Your task to perform on an android device: check the backup settings in the google photos Image 0: 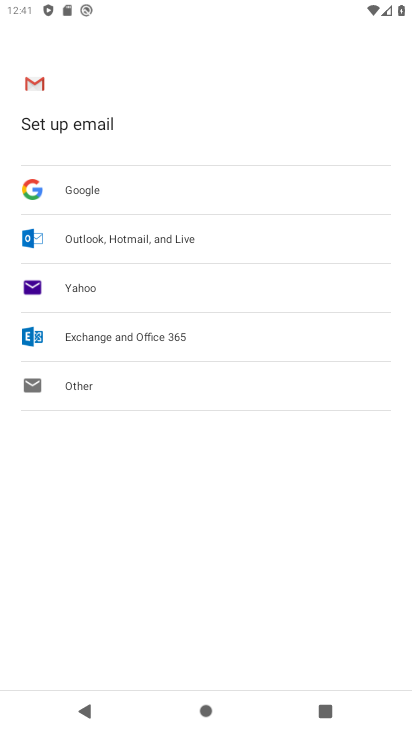
Step 0: press home button
Your task to perform on an android device: check the backup settings in the google photos Image 1: 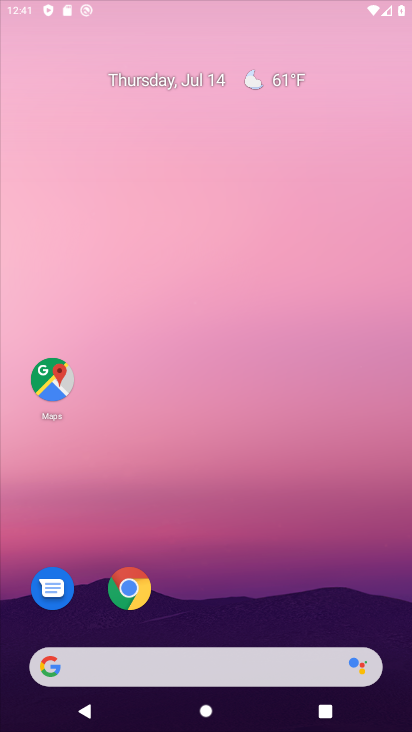
Step 1: drag from (201, 590) to (186, 317)
Your task to perform on an android device: check the backup settings in the google photos Image 2: 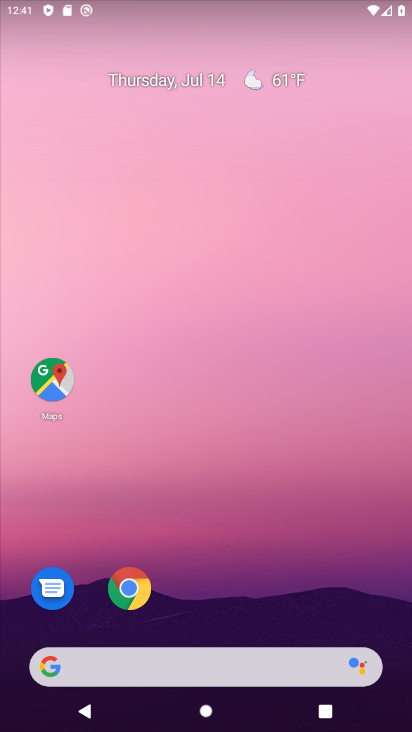
Step 2: drag from (203, 609) to (209, 319)
Your task to perform on an android device: check the backup settings in the google photos Image 3: 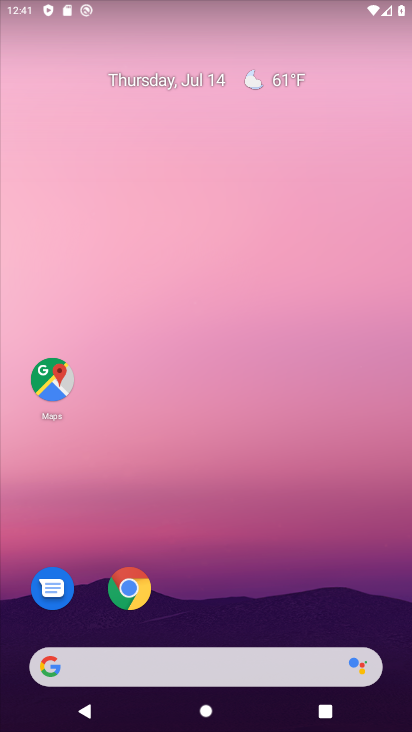
Step 3: drag from (234, 638) to (251, 206)
Your task to perform on an android device: check the backup settings in the google photos Image 4: 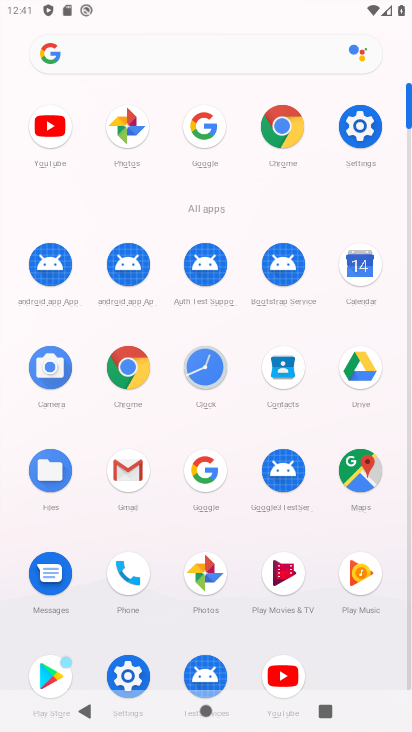
Step 4: click (199, 564)
Your task to perform on an android device: check the backup settings in the google photos Image 5: 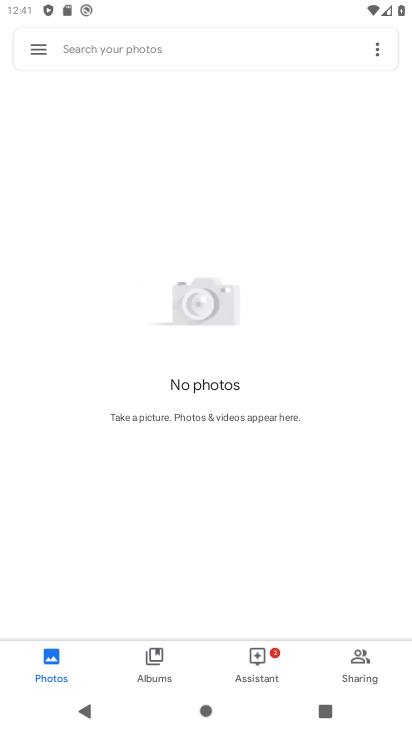
Step 5: click (29, 51)
Your task to perform on an android device: check the backup settings in the google photos Image 6: 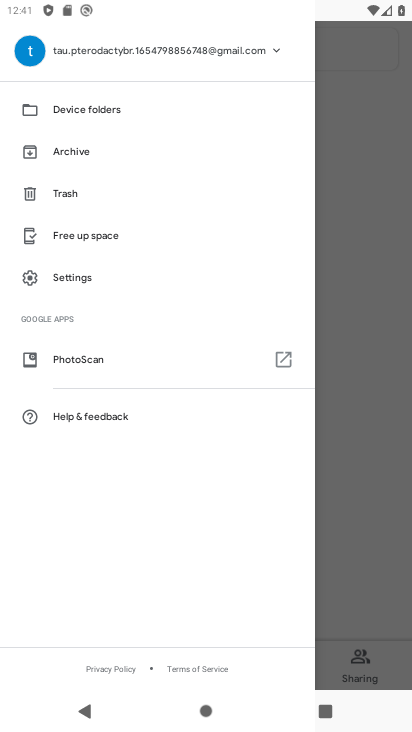
Step 6: click (66, 282)
Your task to perform on an android device: check the backup settings in the google photos Image 7: 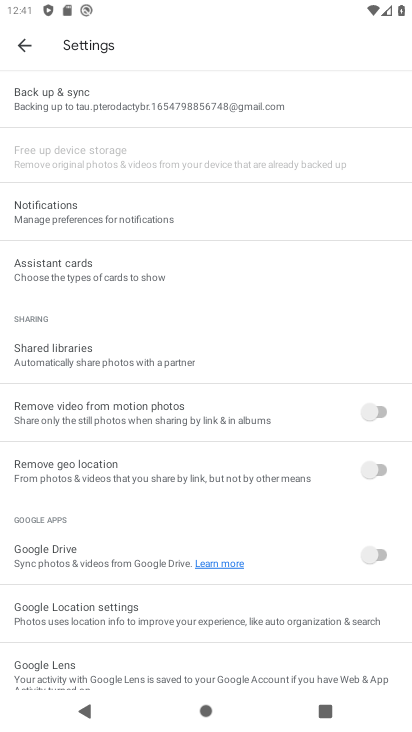
Step 7: click (93, 99)
Your task to perform on an android device: check the backup settings in the google photos Image 8: 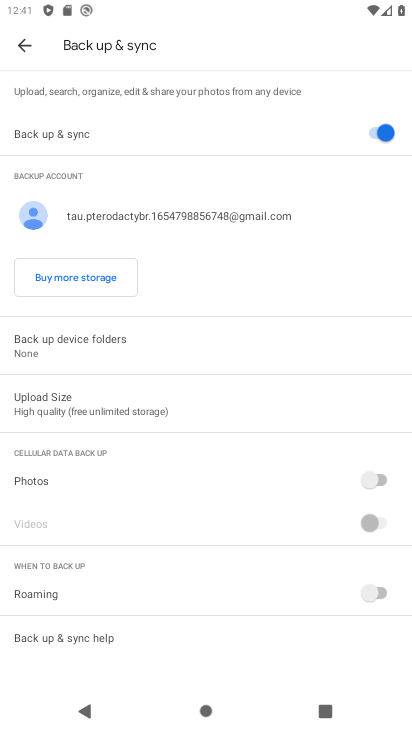
Step 8: task complete